Your task to perform on an android device: find photos in the google photos app Image 0: 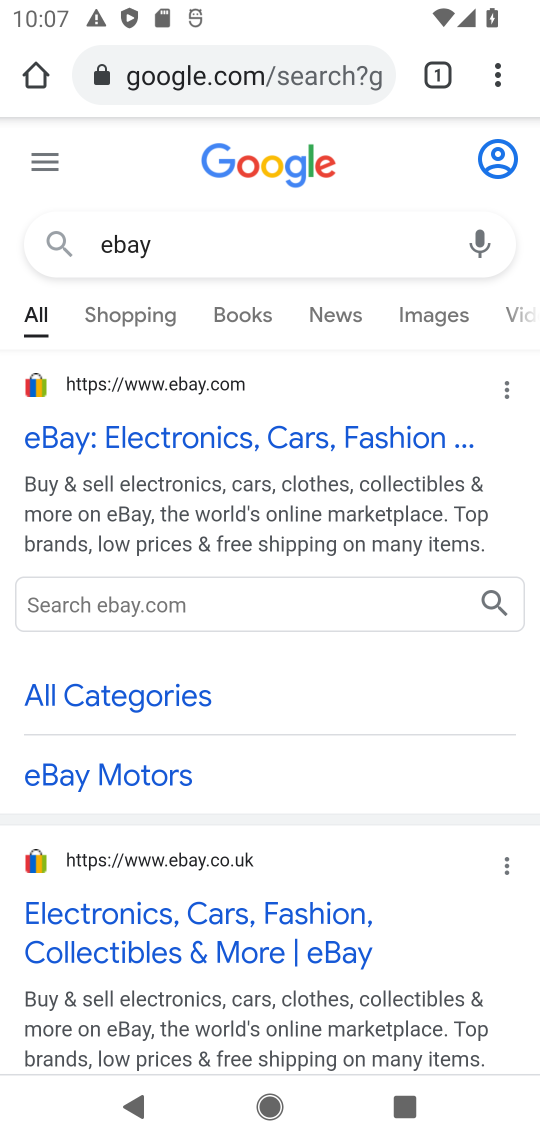
Step 0: press home button
Your task to perform on an android device: find photos in the google photos app Image 1: 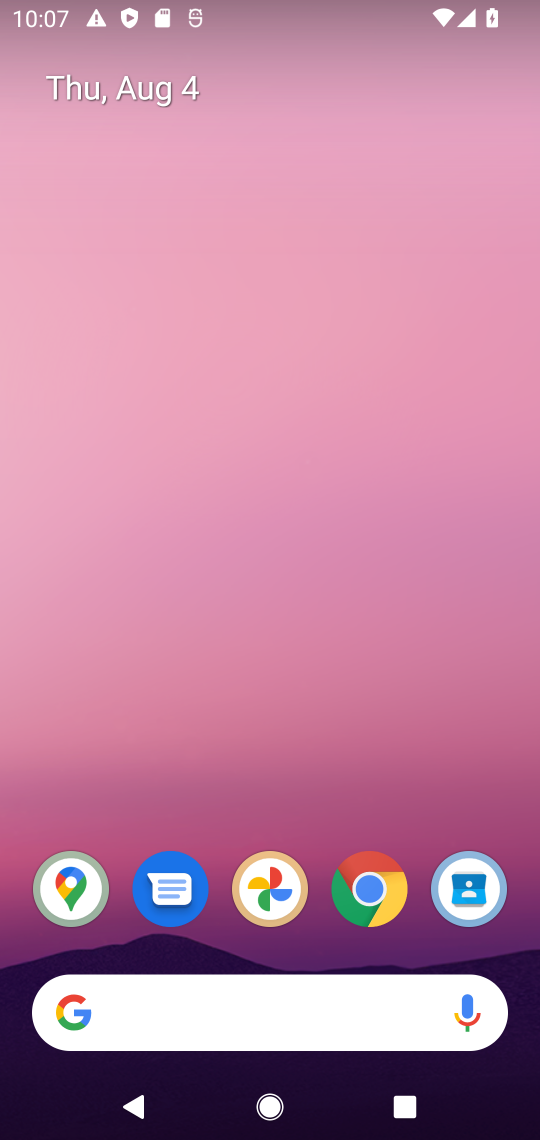
Step 1: drag from (312, 795) to (311, 405)
Your task to perform on an android device: find photos in the google photos app Image 2: 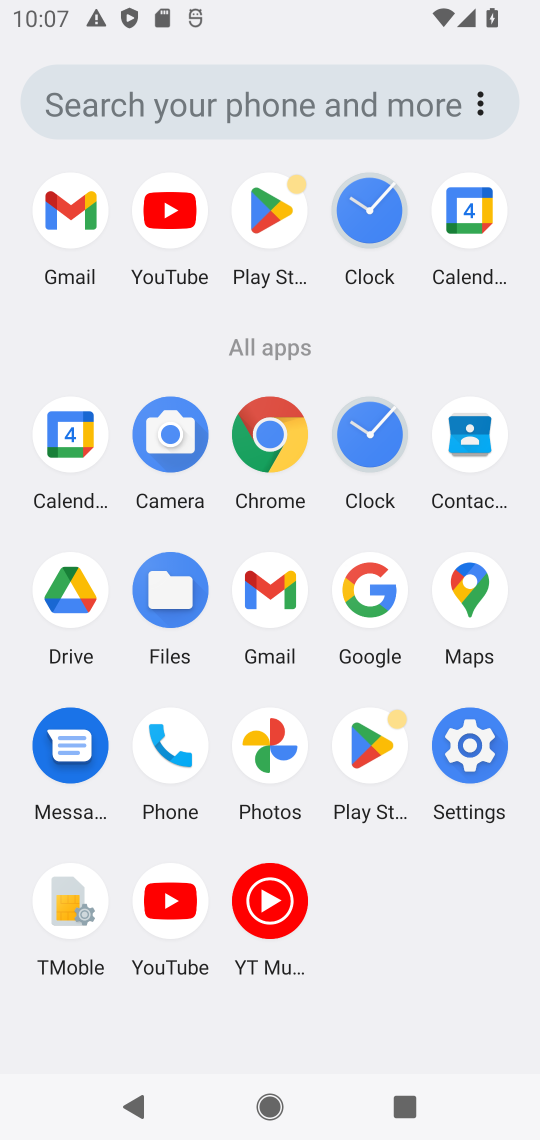
Step 2: click (273, 742)
Your task to perform on an android device: find photos in the google photos app Image 3: 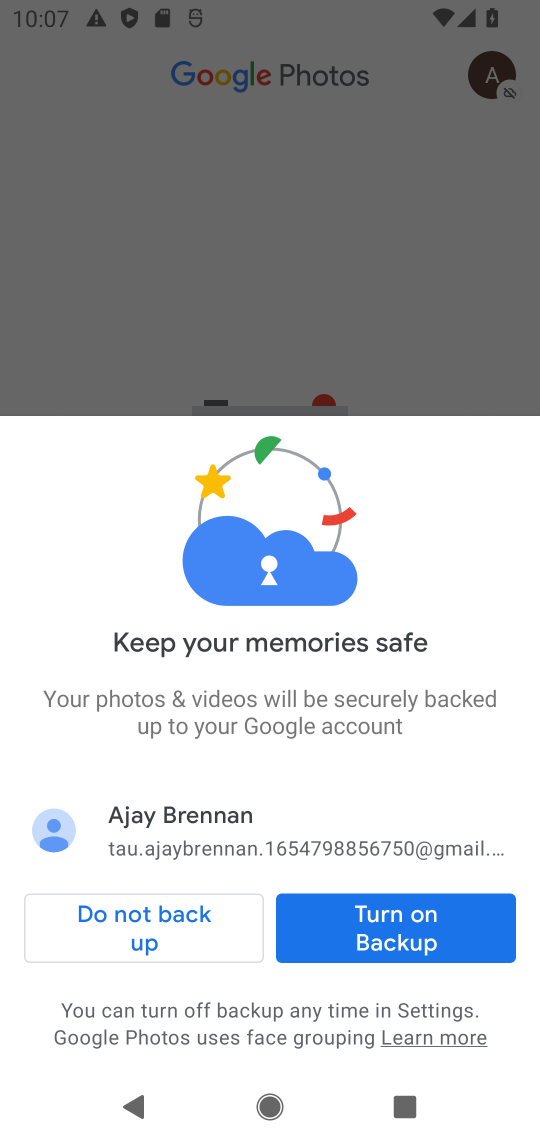
Step 3: click (152, 925)
Your task to perform on an android device: find photos in the google photos app Image 4: 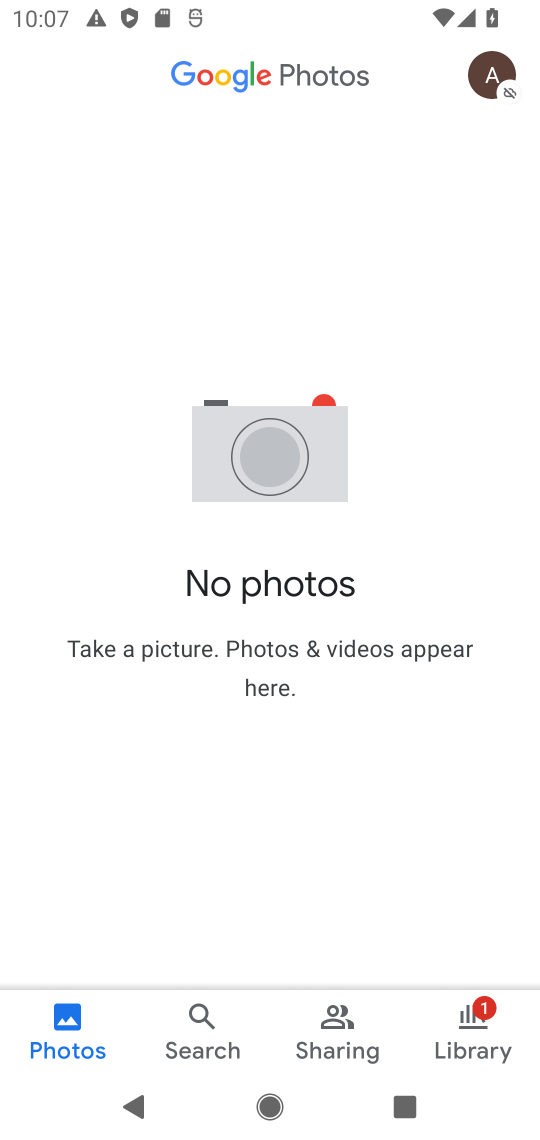
Step 4: task complete